Your task to perform on an android device: turn notification dots on Image 0: 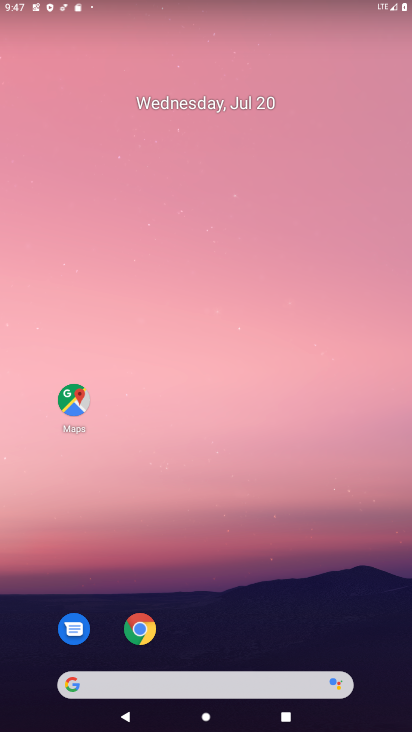
Step 0: press home button
Your task to perform on an android device: turn notification dots on Image 1: 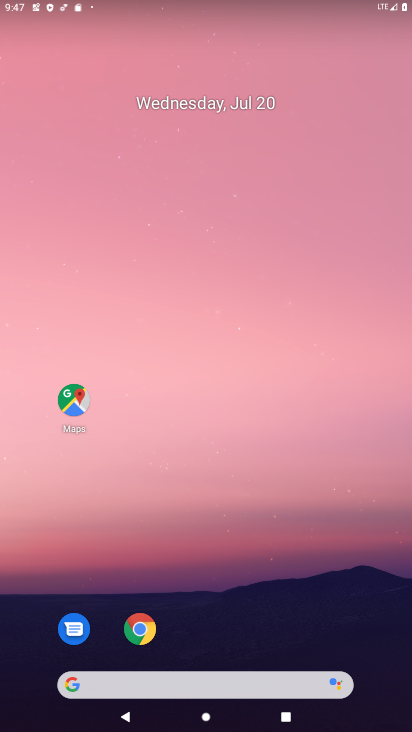
Step 1: drag from (311, 624) to (303, 80)
Your task to perform on an android device: turn notification dots on Image 2: 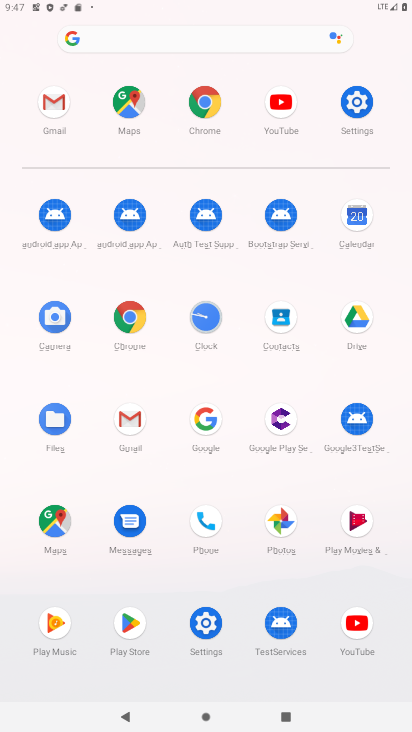
Step 2: click (188, 633)
Your task to perform on an android device: turn notification dots on Image 3: 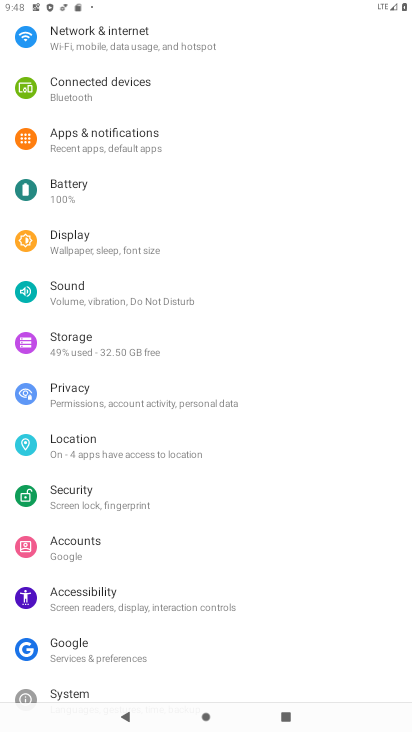
Step 3: click (95, 153)
Your task to perform on an android device: turn notification dots on Image 4: 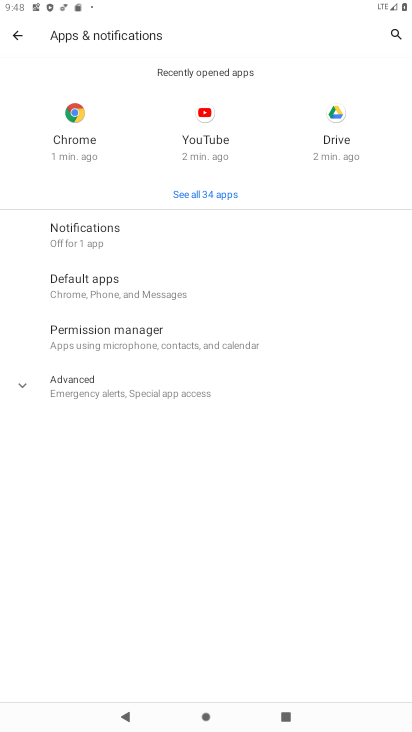
Step 4: click (80, 228)
Your task to perform on an android device: turn notification dots on Image 5: 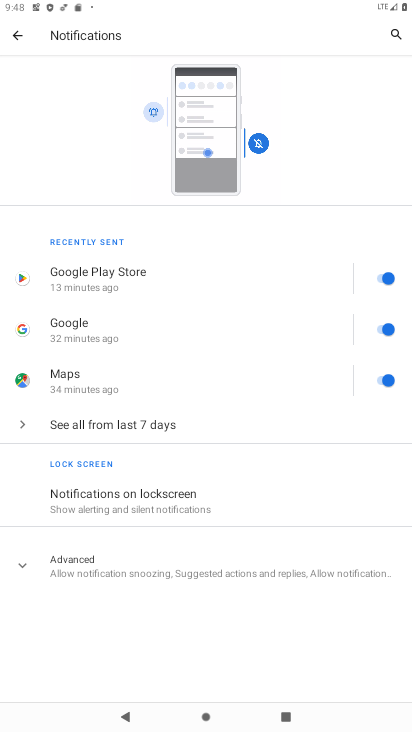
Step 5: click (92, 555)
Your task to perform on an android device: turn notification dots on Image 6: 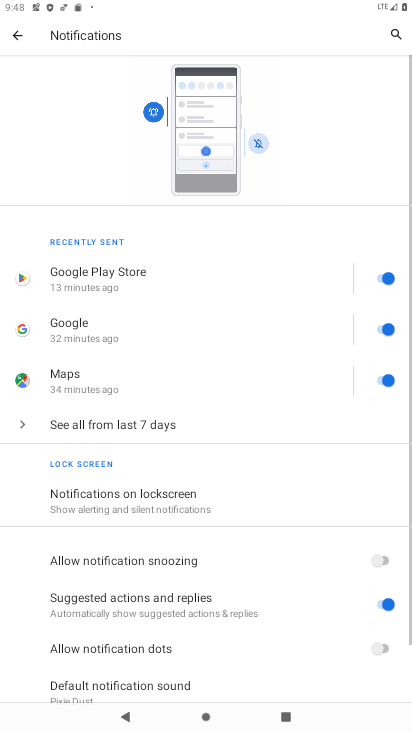
Step 6: drag from (106, 650) to (133, 510)
Your task to perform on an android device: turn notification dots on Image 7: 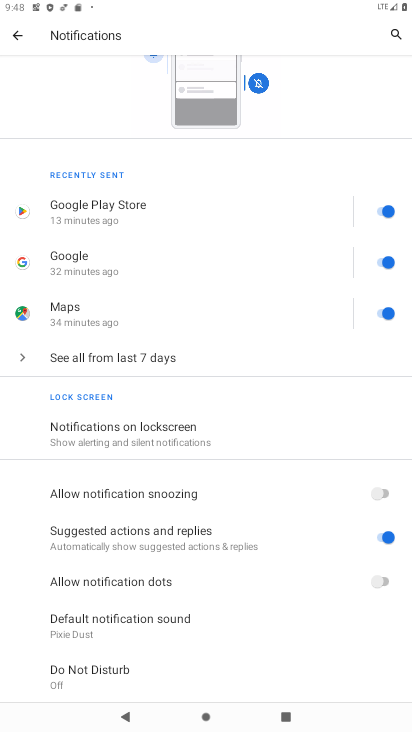
Step 7: click (359, 579)
Your task to perform on an android device: turn notification dots on Image 8: 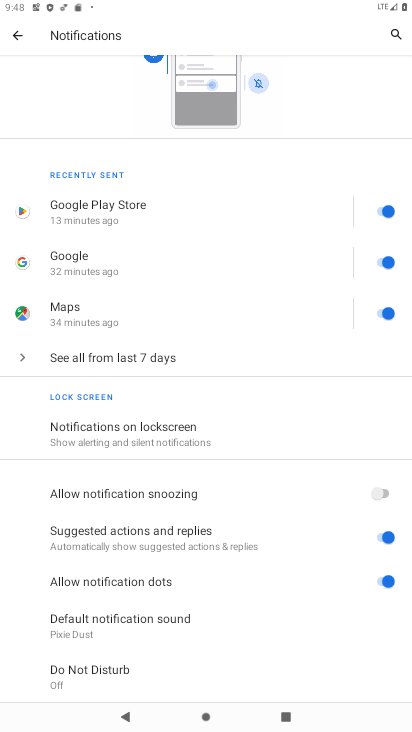
Step 8: task complete